Your task to perform on an android device: turn off wifi Image 0: 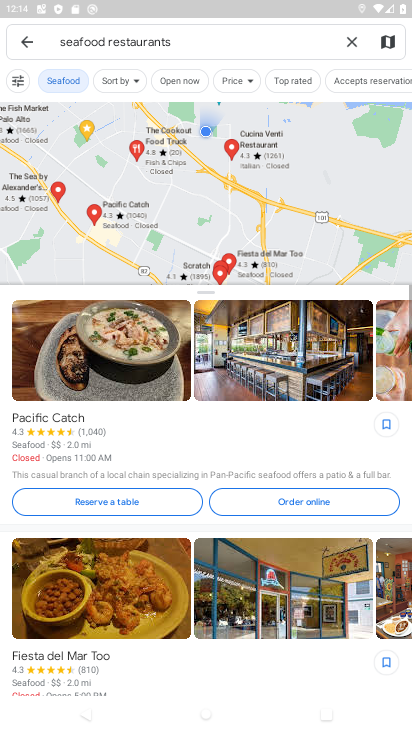
Step 0: press home button
Your task to perform on an android device: turn off wifi Image 1: 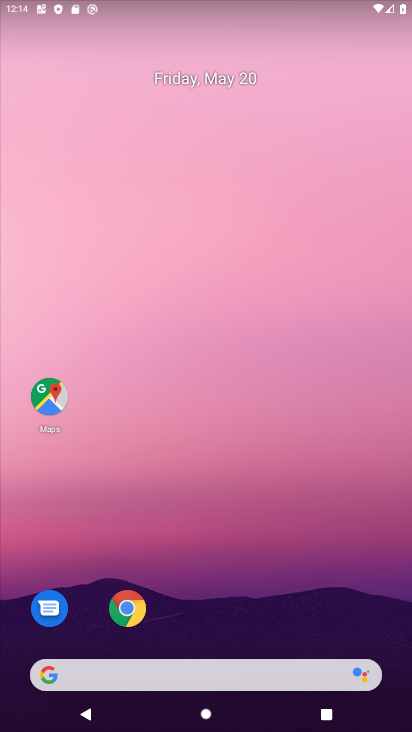
Step 1: drag from (390, 617) to (347, 49)
Your task to perform on an android device: turn off wifi Image 2: 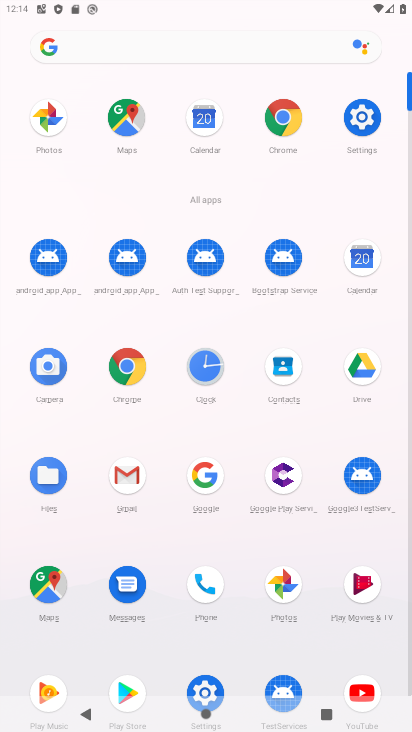
Step 2: click (349, 130)
Your task to perform on an android device: turn off wifi Image 3: 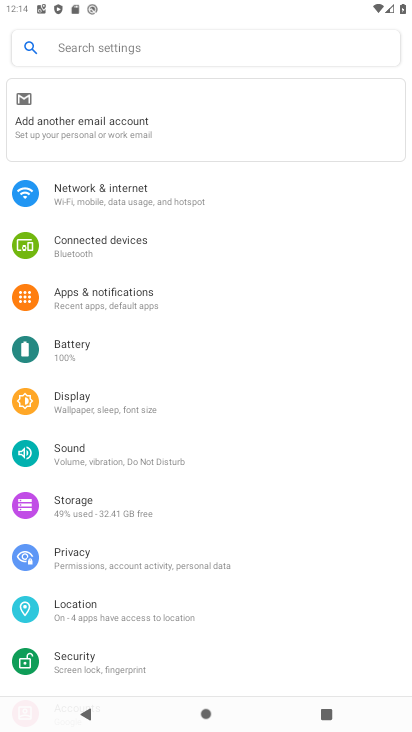
Step 3: click (150, 198)
Your task to perform on an android device: turn off wifi Image 4: 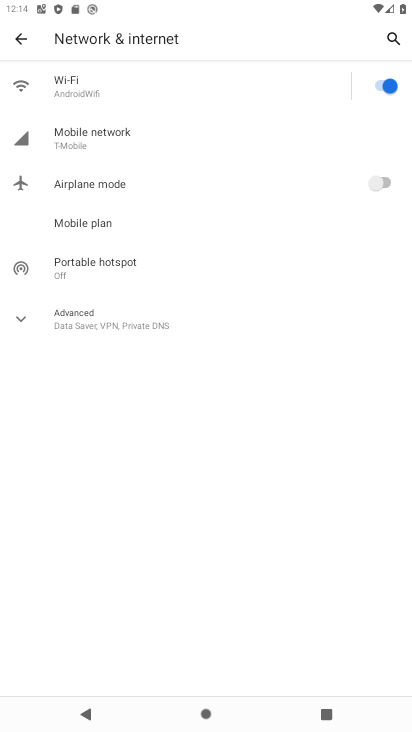
Step 4: click (380, 85)
Your task to perform on an android device: turn off wifi Image 5: 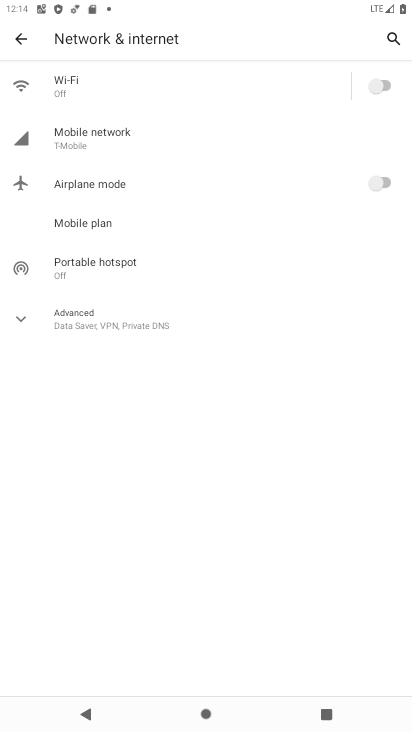
Step 5: task complete